Your task to perform on an android device: change the clock display to show seconds Image 0: 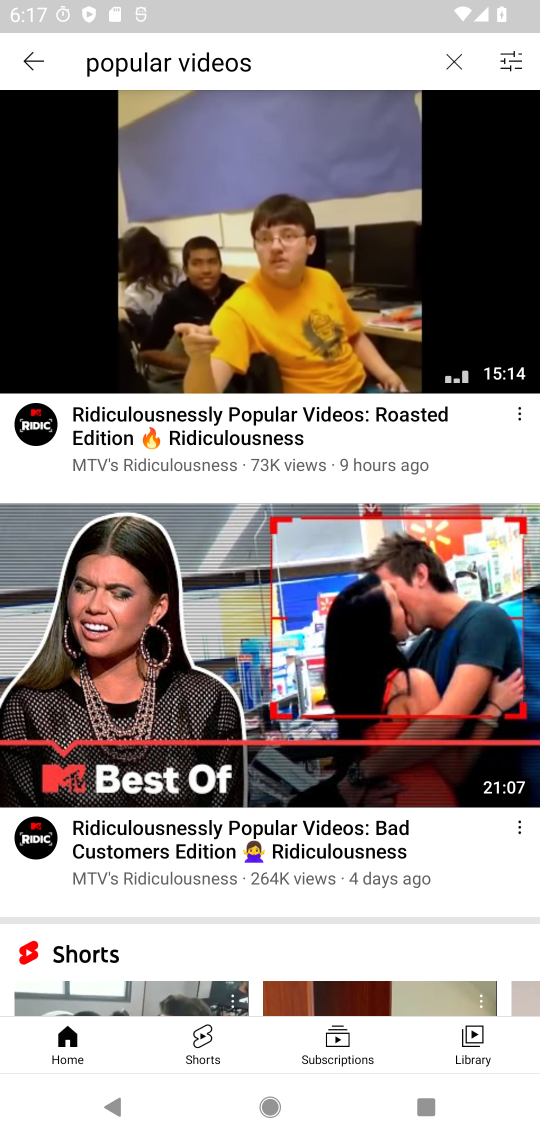
Step 0: press home button
Your task to perform on an android device: change the clock display to show seconds Image 1: 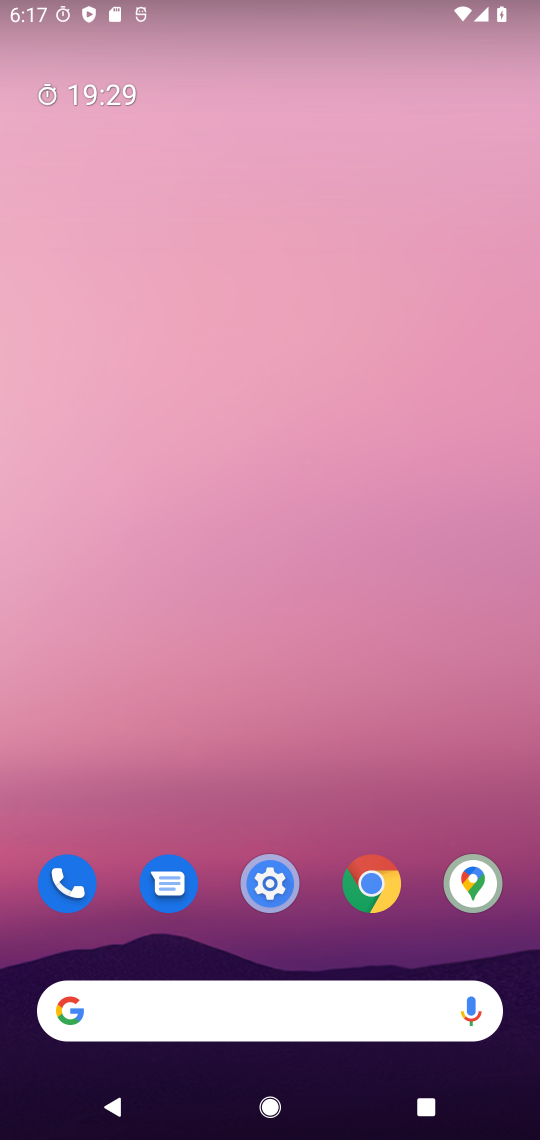
Step 1: drag from (256, 820) to (256, 345)
Your task to perform on an android device: change the clock display to show seconds Image 2: 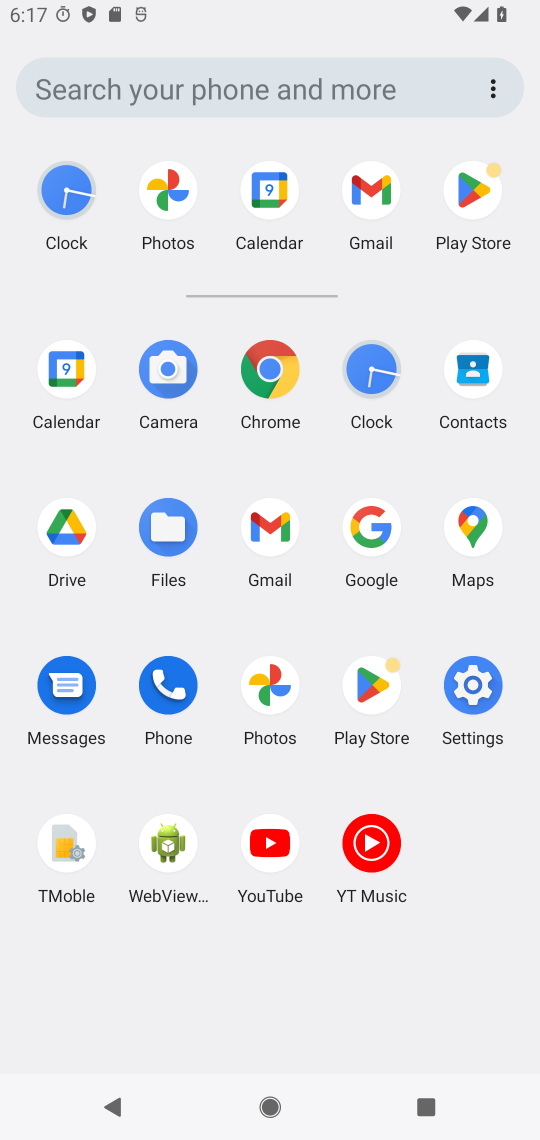
Step 2: click (350, 339)
Your task to perform on an android device: change the clock display to show seconds Image 3: 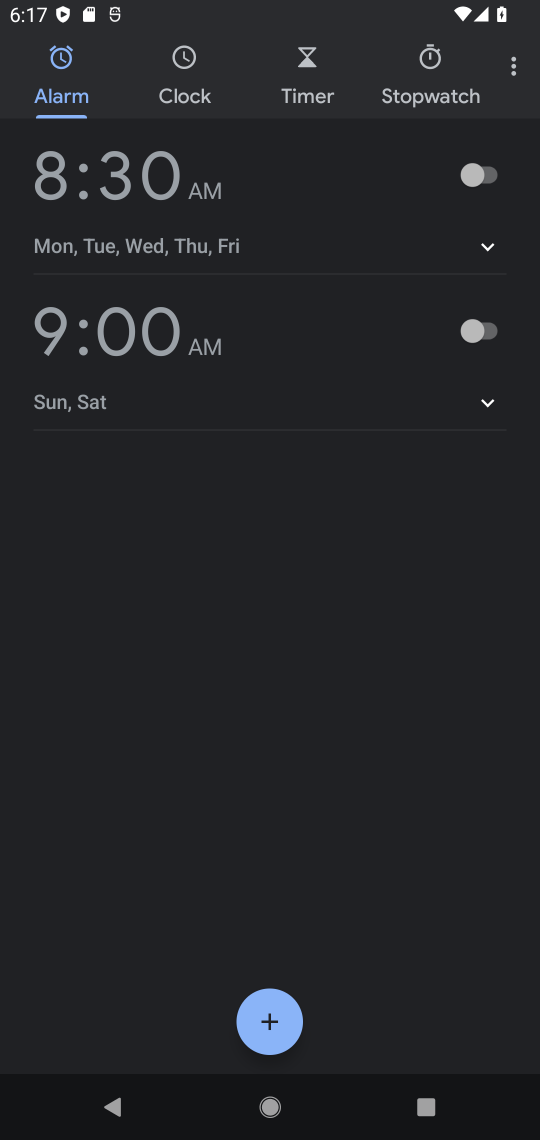
Step 3: click (501, 80)
Your task to perform on an android device: change the clock display to show seconds Image 4: 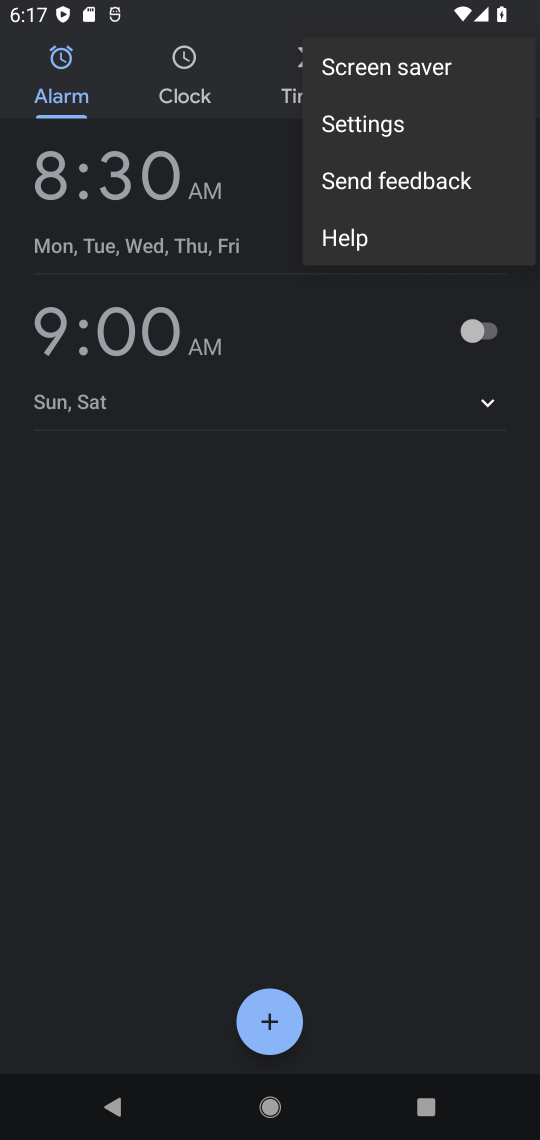
Step 4: click (385, 151)
Your task to perform on an android device: change the clock display to show seconds Image 5: 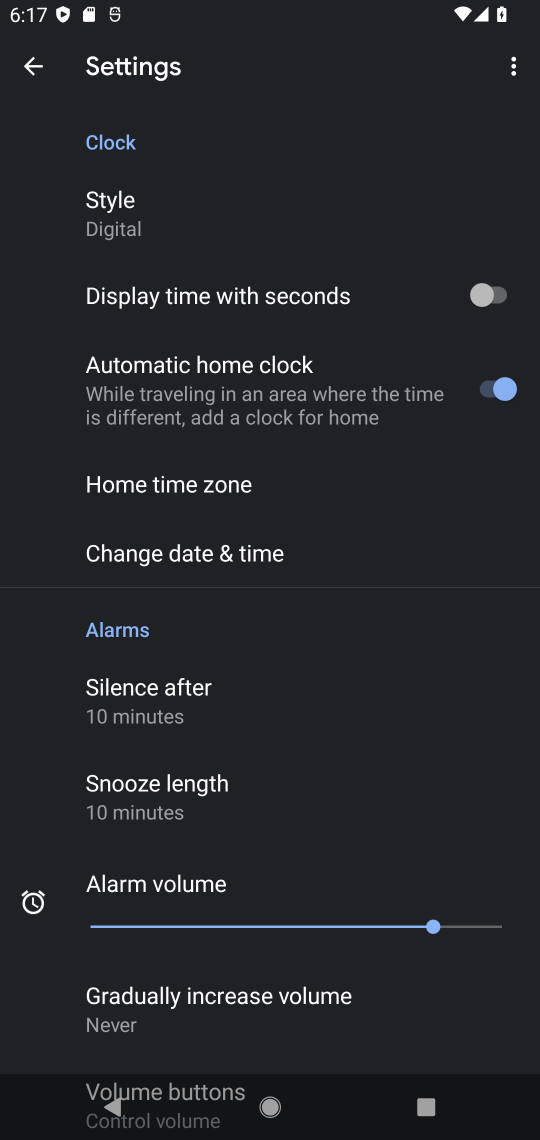
Step 5: click (485, 288)
Your task to perform on an android device: change the clock display to show seconds Image 6: 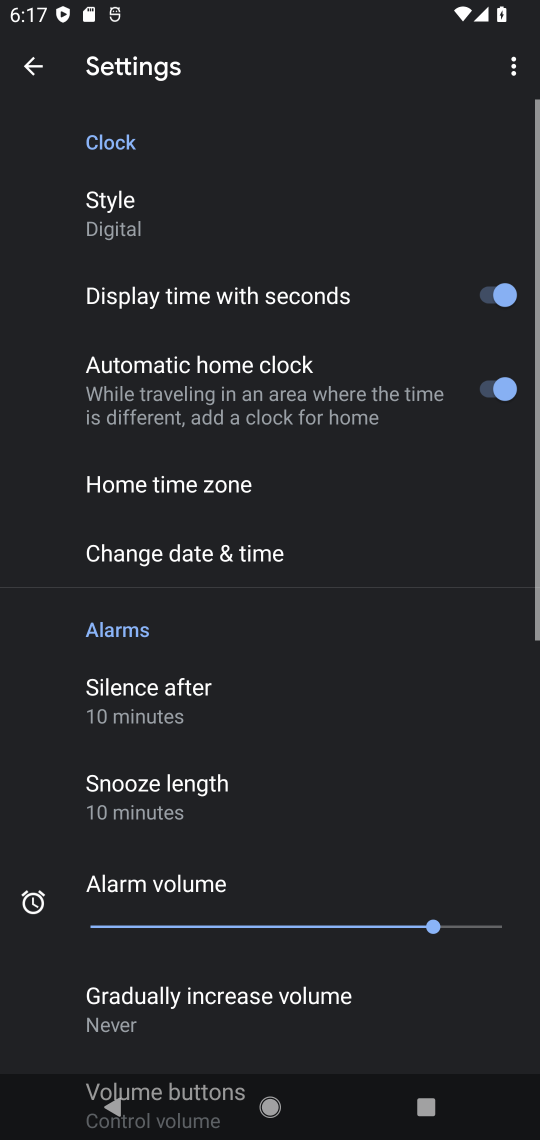
Step 6: task complete